Your task to perform on an android device: turn pop-ups off in chrome Image 0: 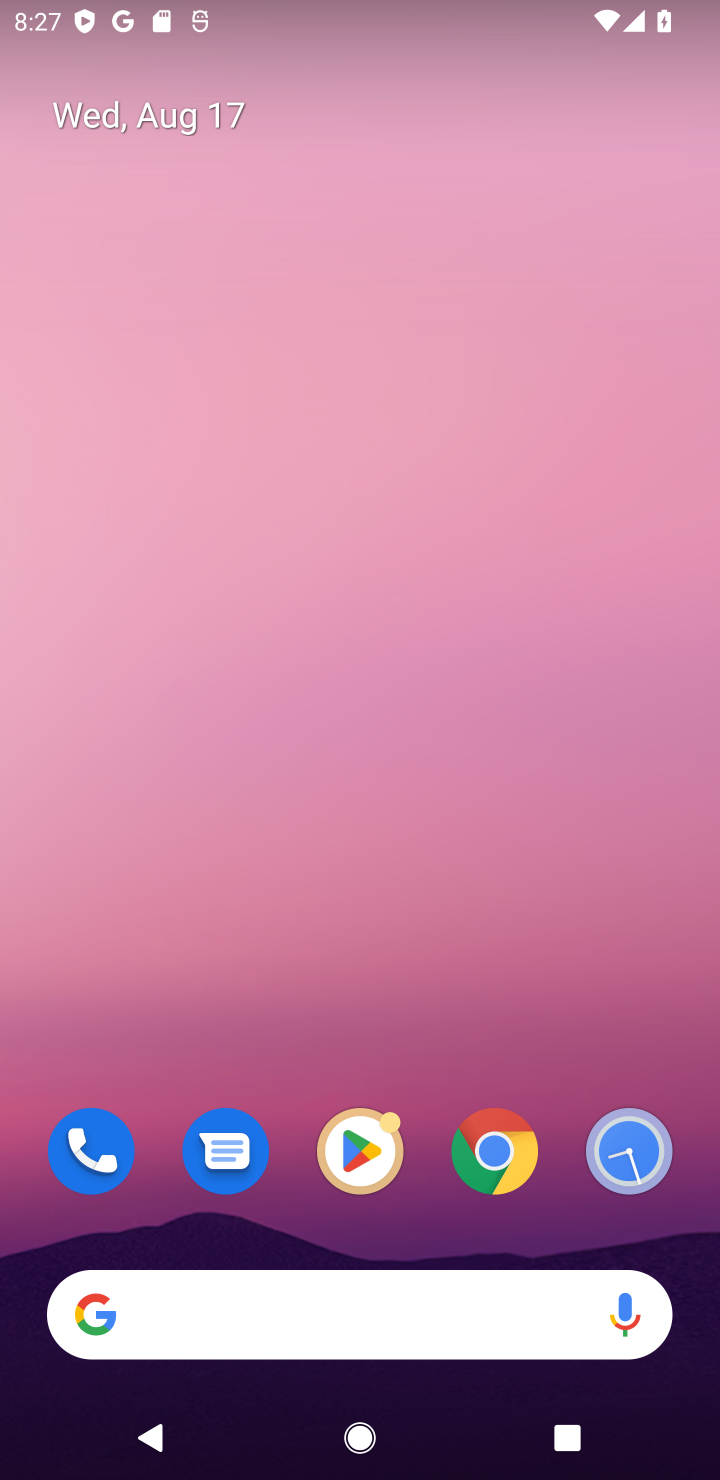
Step 0: drag from (404, 1237) to (503, 1148)
Your task to perform on an android device: turn pop-ups off in chrome Image 1: 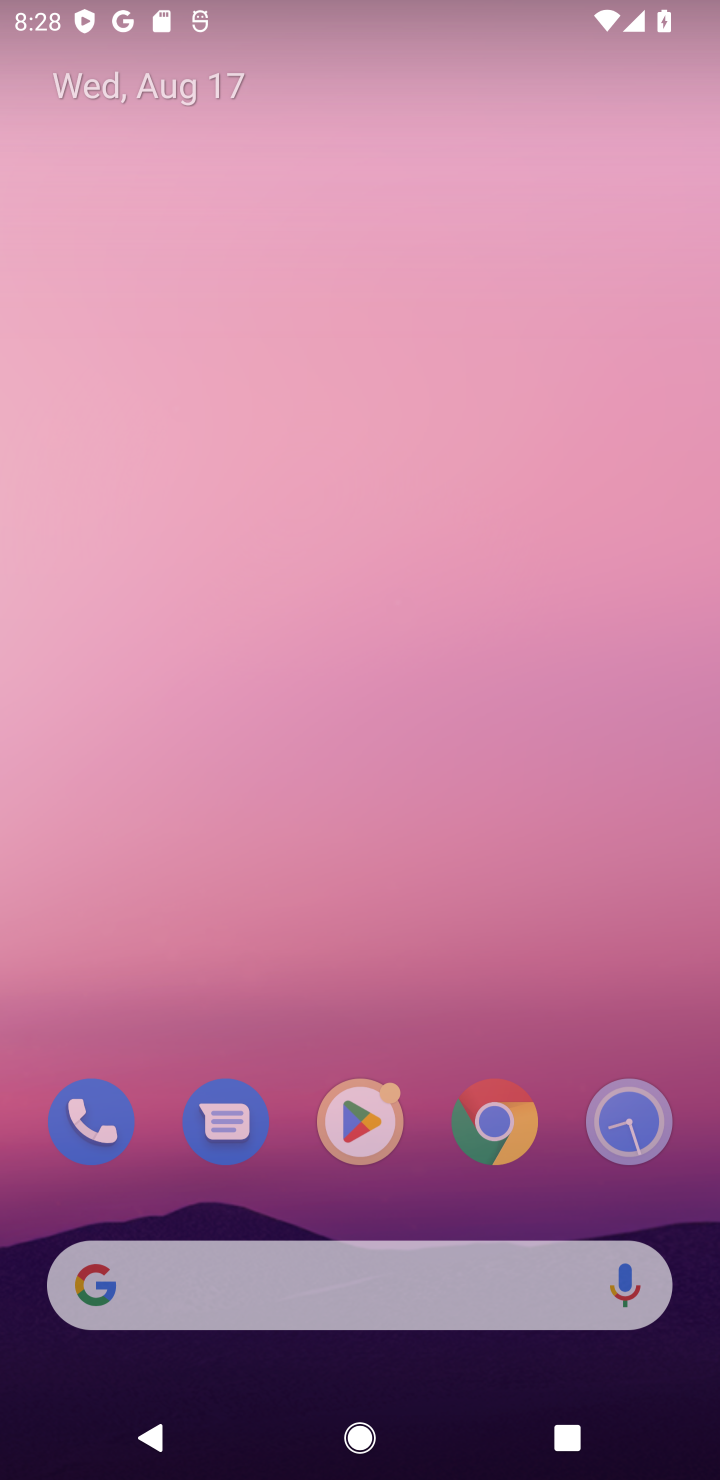
Step 1: click (503, 1148)
Your task to perform on an android device: turn pop-ups off in chrome Image 2: 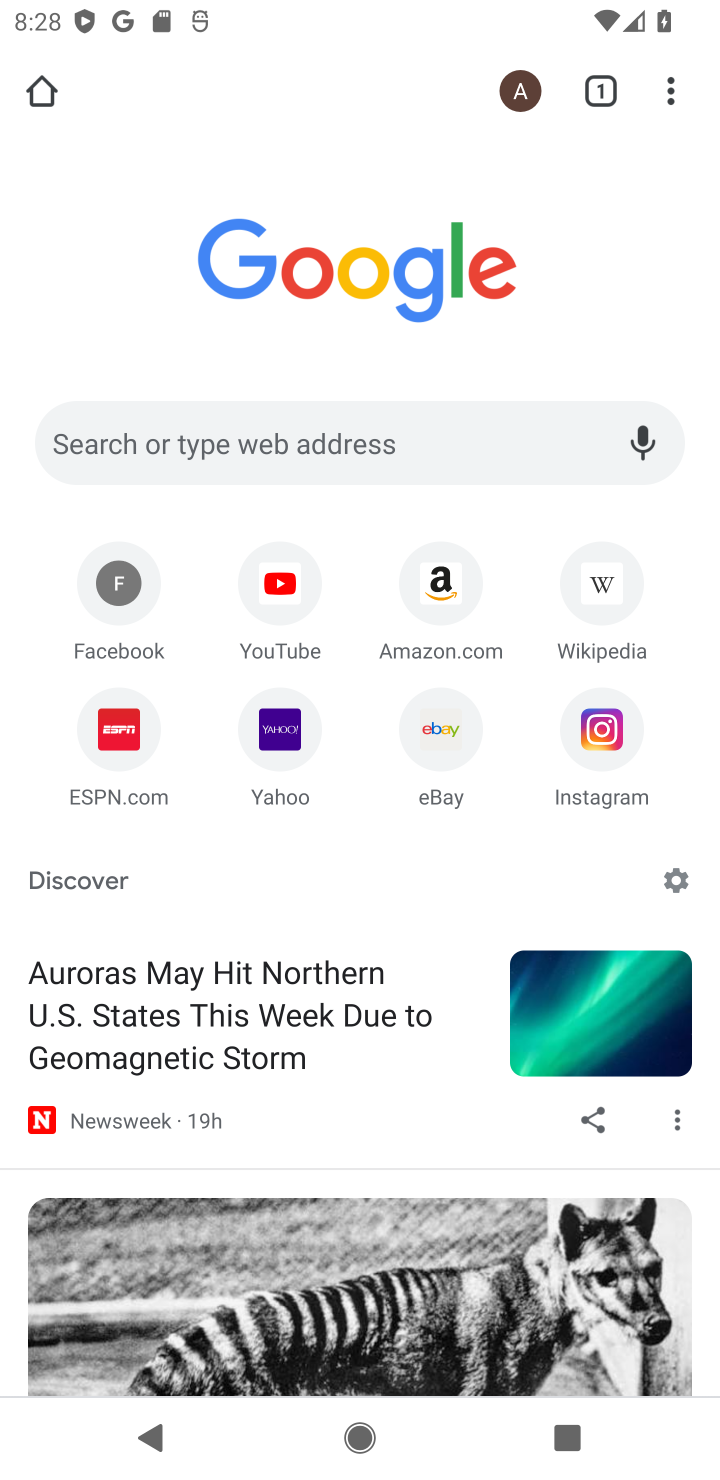
Step 2: click (659, 74)
Your task to perform on an android device: turn pop-ups off in chrome Image 3: 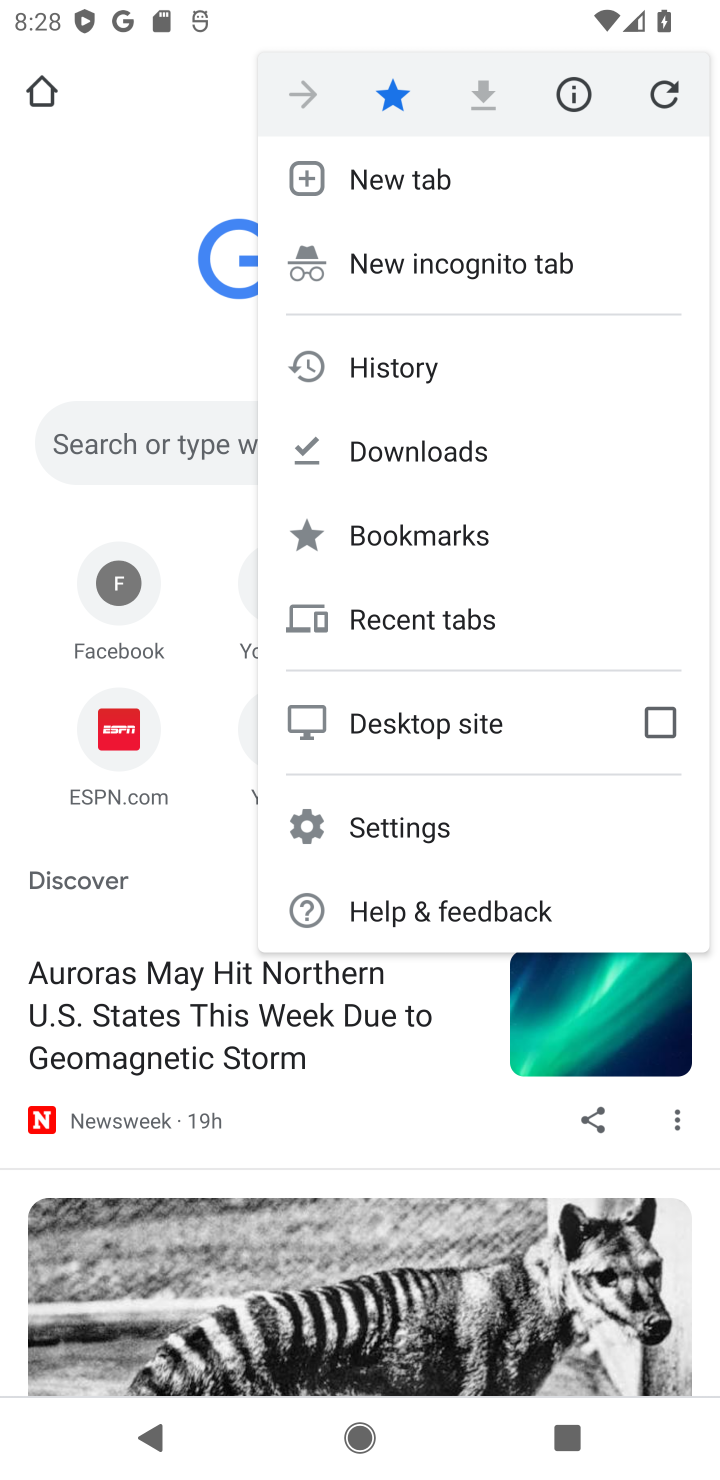
Step 3: click (385, 817)
Your task to perform on an android device: turn pop-ups off in chrome Image 4: 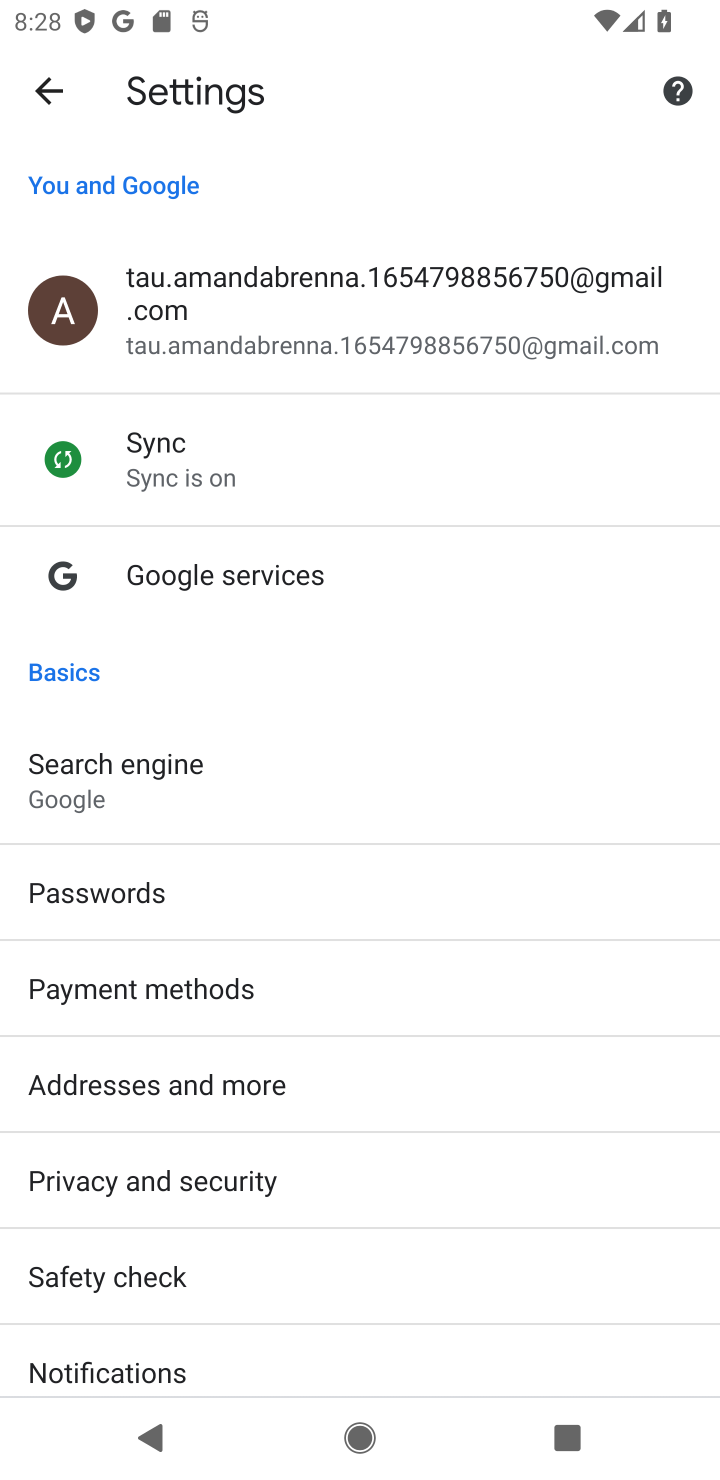
Step 4: drag from (168, 1014) to (219, 377)
Your task to perform on an android device: turn pop-ups off in chrome Image 5: 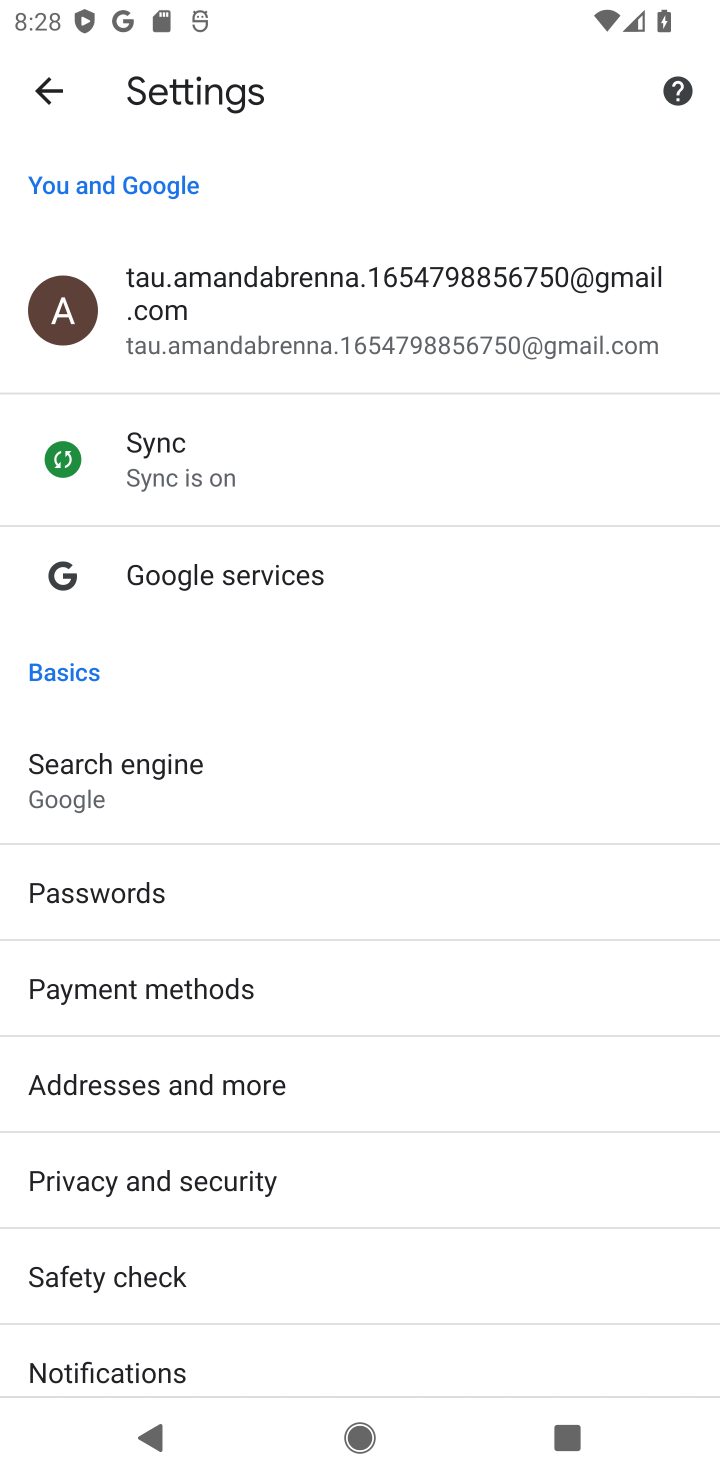
Step 5: drag from (214, 1257) to (187, 333)
Your task to perform on an android device: turn pop-ups off in chrome Image 6: 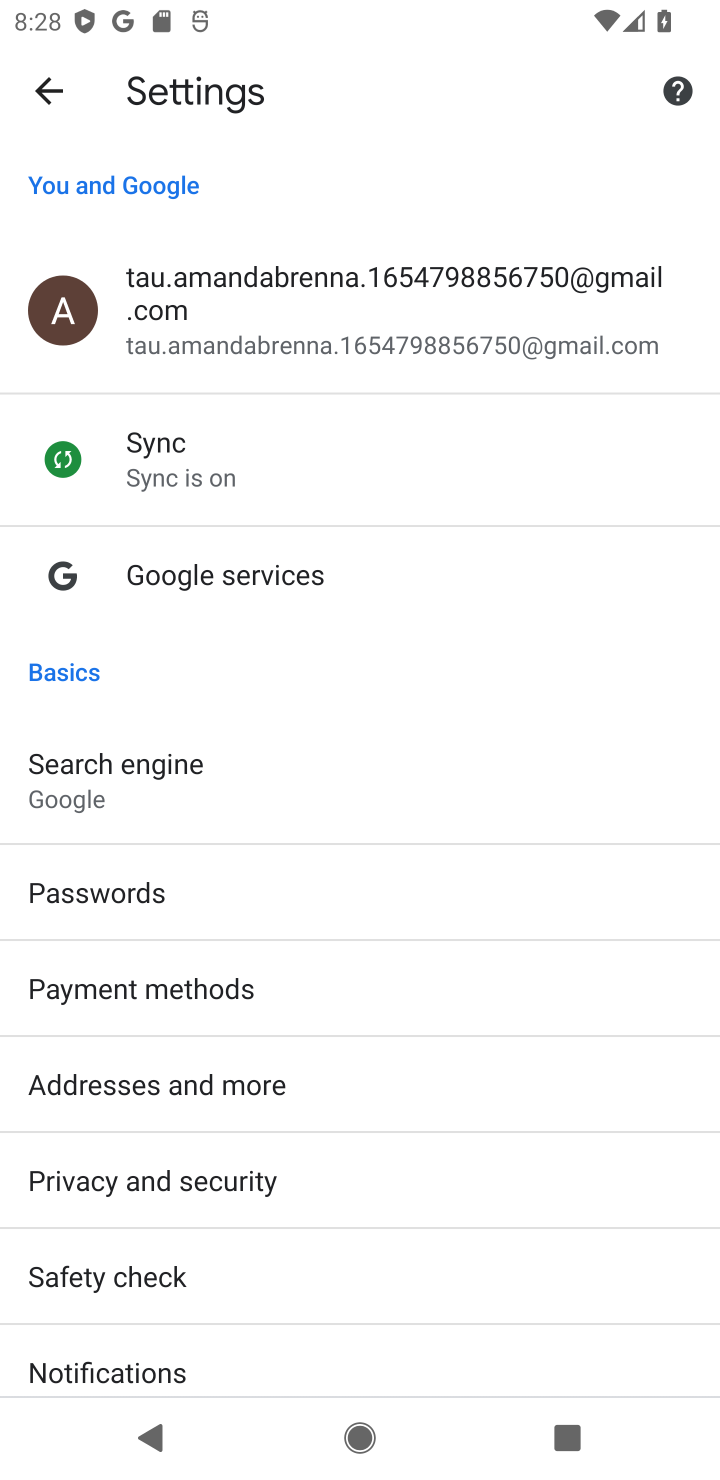
Step 6: drag from (153, 1286) to (274, 59)
Your task to perform on an android device: turn pop-ups off in chrome Image 7: 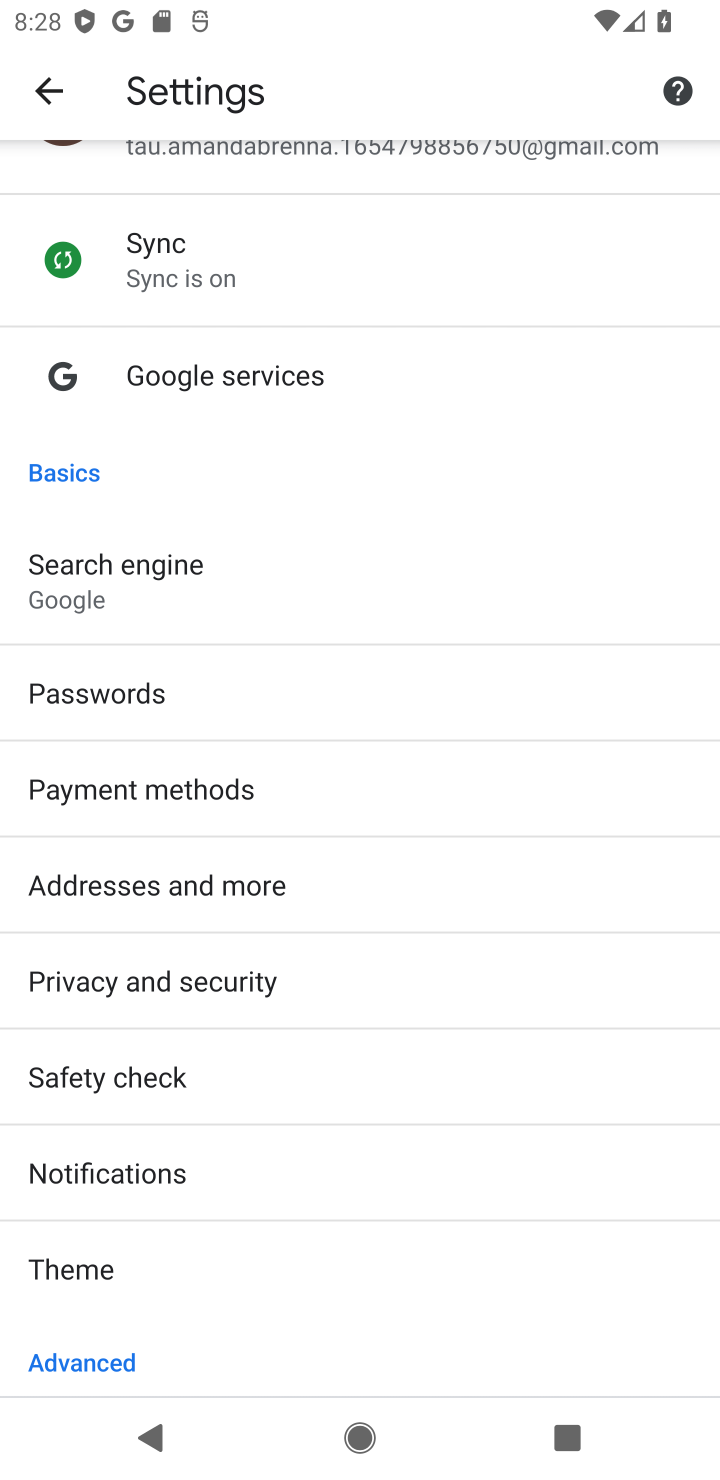
Step 7: drag from (140, 1251) to (140, 223)
Your task to perform on an android device: turn pop-ups off in chrome Image 8: 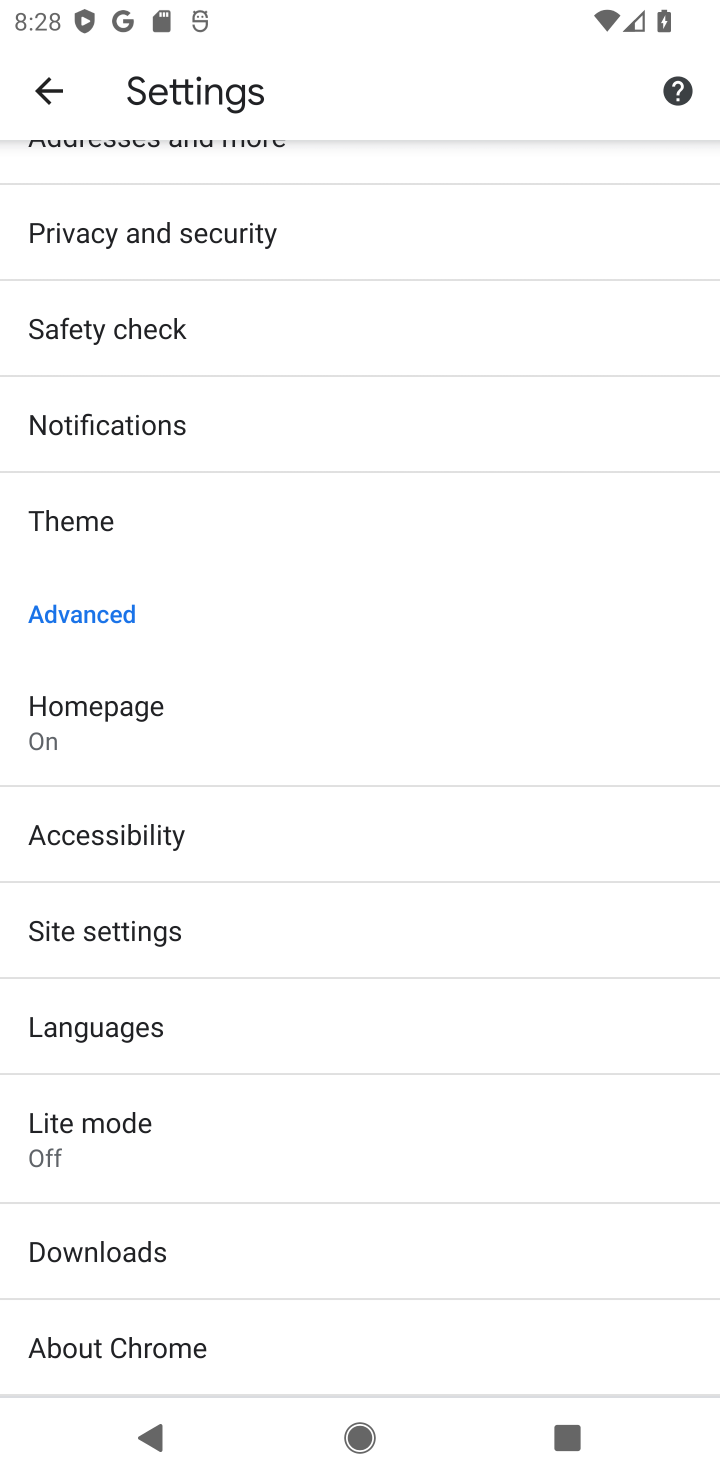
Step 8: click (105, 958)
Your task to perform on an android device: turn pop-ups off in chrome Image 9: 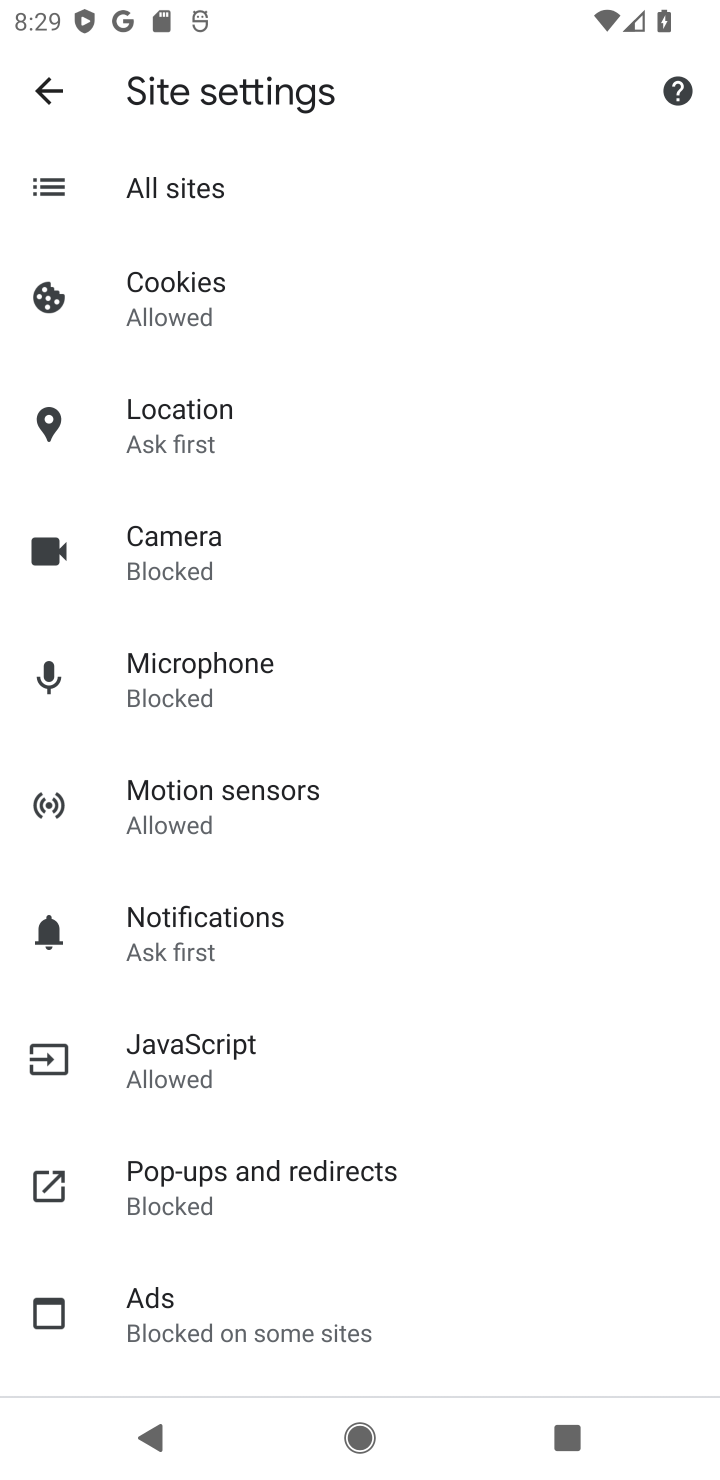
Step 9: click (201, 1194)
Your task to perform on an android device: turn pop-ups off in chrome Image 10: 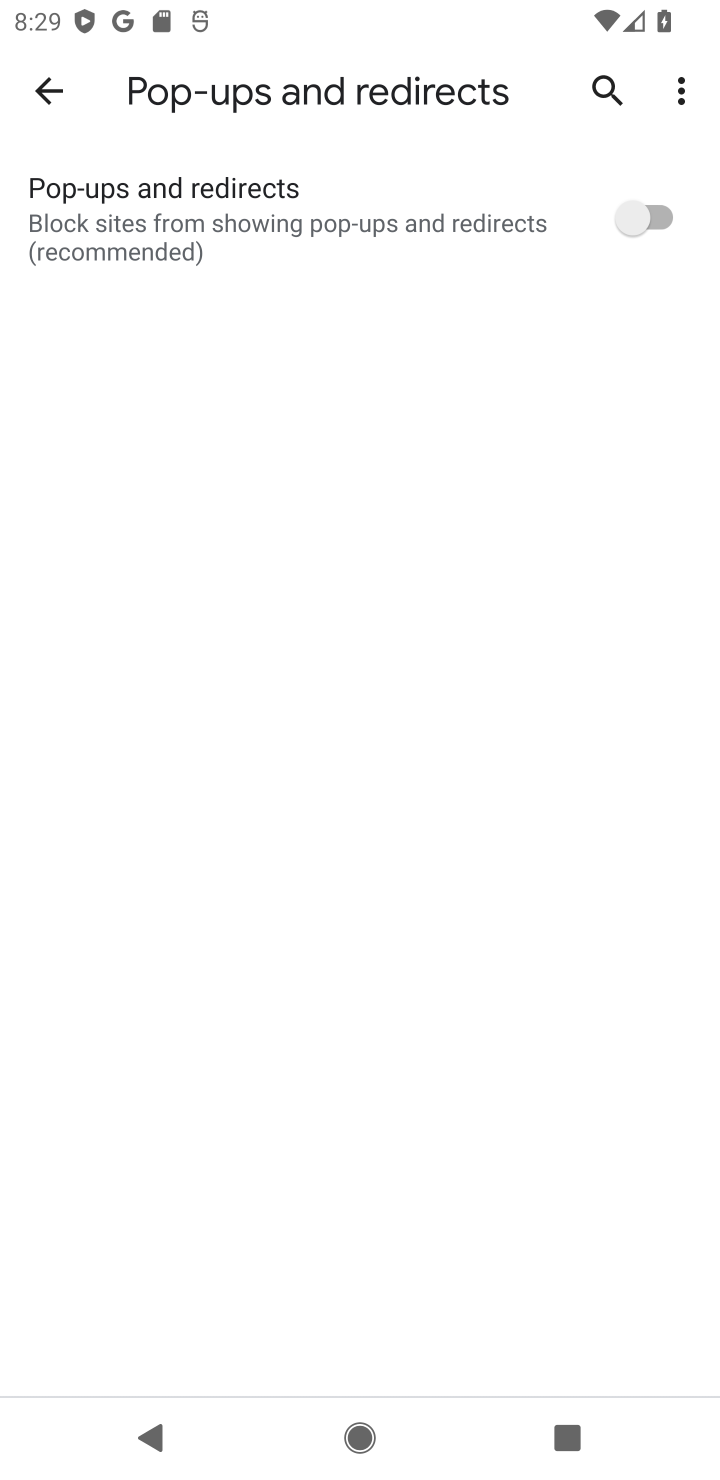
Step 10: task complete